Your task to perform on an android device: change alarm snooze length Image 0: 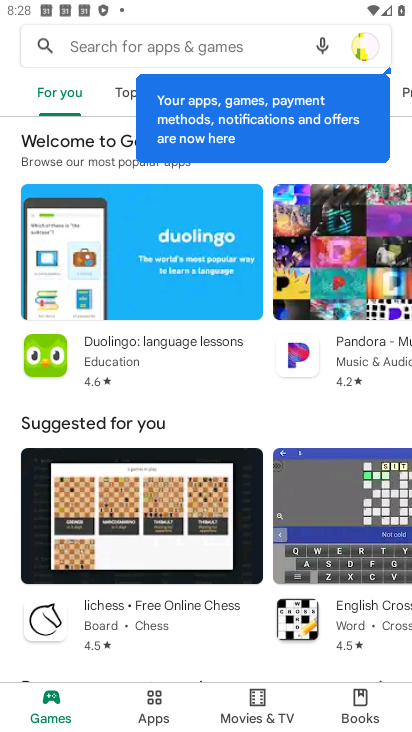
Step 0: press home button
Your task to perform on an android device: change alarm snooze length Image 1: 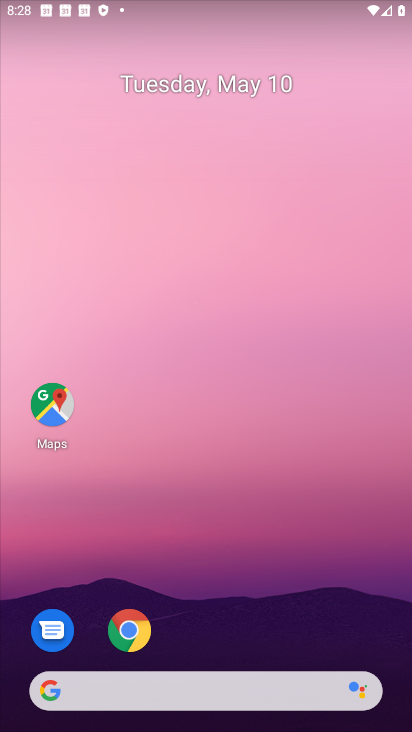
Step 1: drag from (254, 728) to (333, 14)
Your task to perform on an android device: change alarm snooze length Image 2: 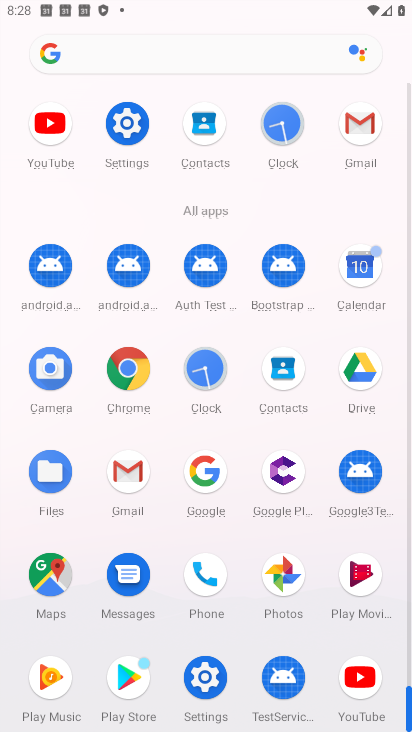
Step 2: click (278, 136)
Your task to perform on an android device: change alarm snooze length Image 3: 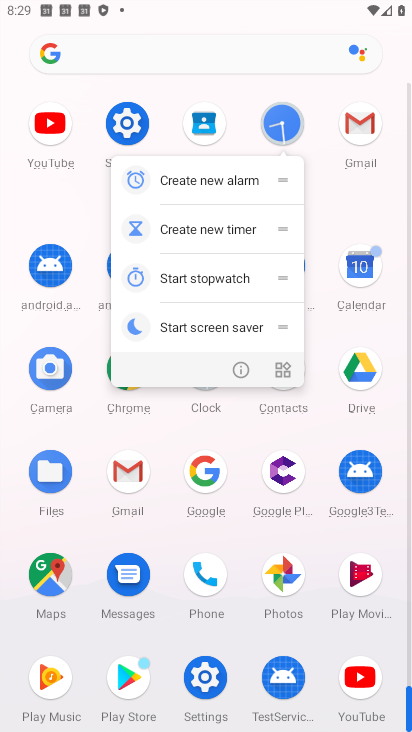
Step 3: click (293, 118)
Your task to perform on an android device: change alarm snooze length Image 4: 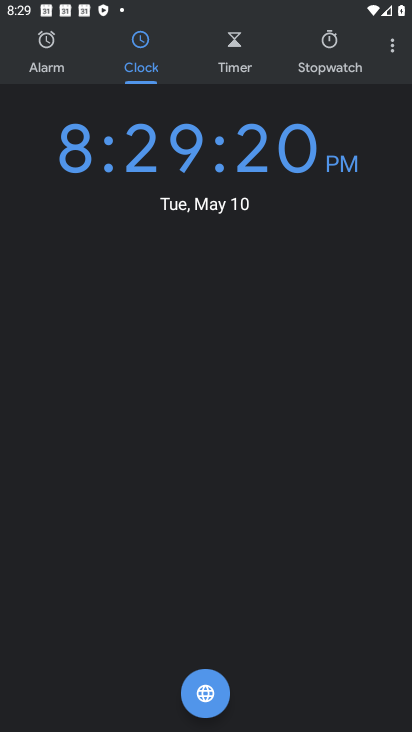
Step 4: click (387, 48)
Your task to perform on an android device: change alarm snooze length Image 5: 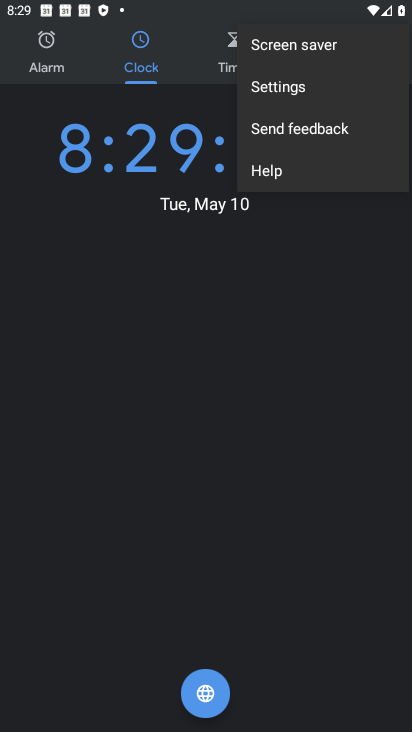
Step 5: click (320, 97)
Your task to perform on an android device: change alarm snooze length Image 6: 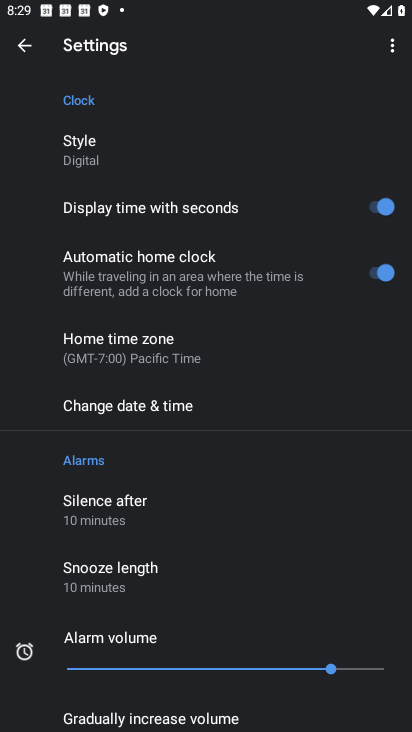
Step 6: click (144, 586)
Your task to perform on an android device: change alarm snooze length Image 7: 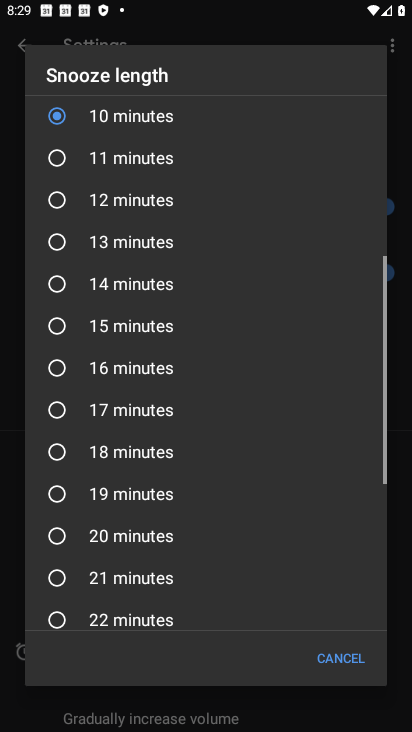
Step 7: click (157, 421)
Your task to perform on an android device: change alarm snooze length Image 8: 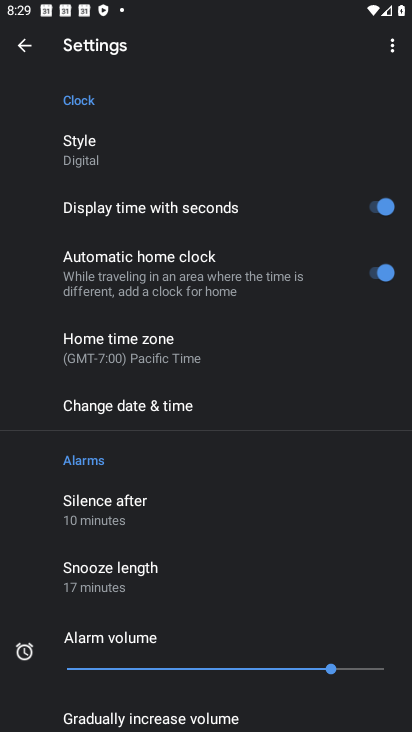
Step 8: task complete